Your task to perform on an android device: Do I have any events this weekend? Image 0: 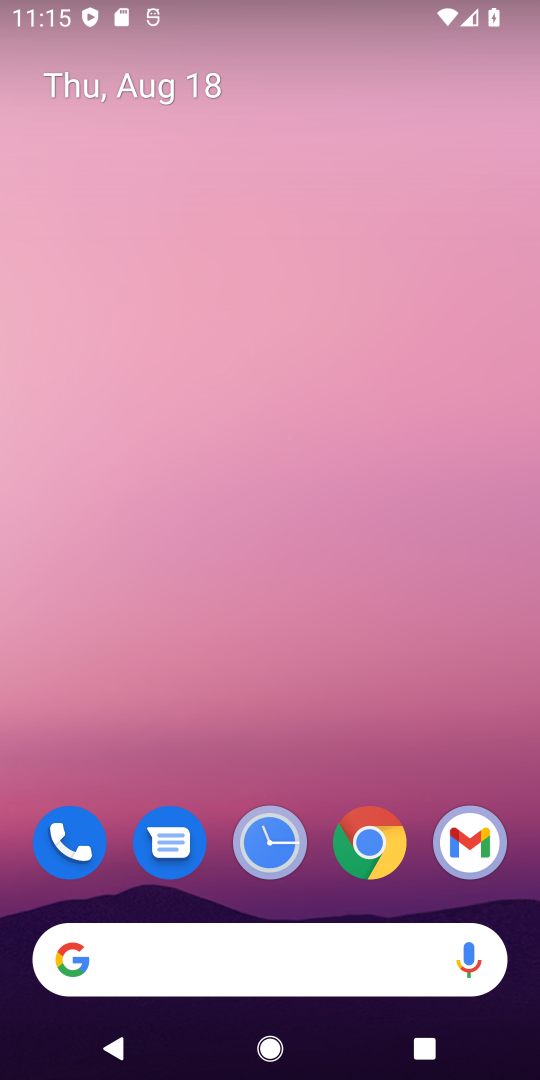
Step 0: click (193, 94)
Your task to perform on an android device: Do I have any events this weekend? Image 1: 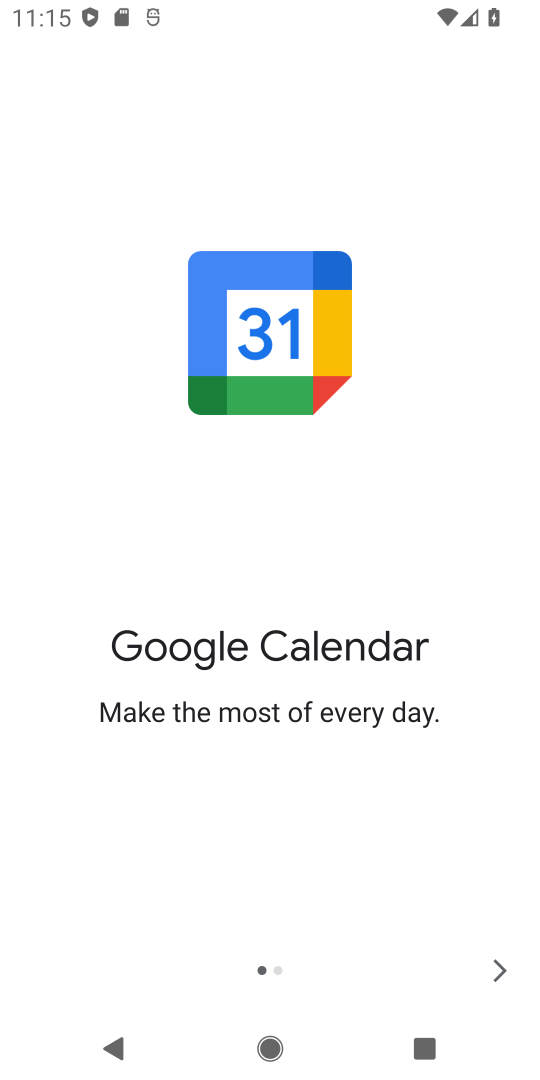
Step 1: click (513, 984)
Your task to perform on an android device: Do I have any events this weekend? Image 2: 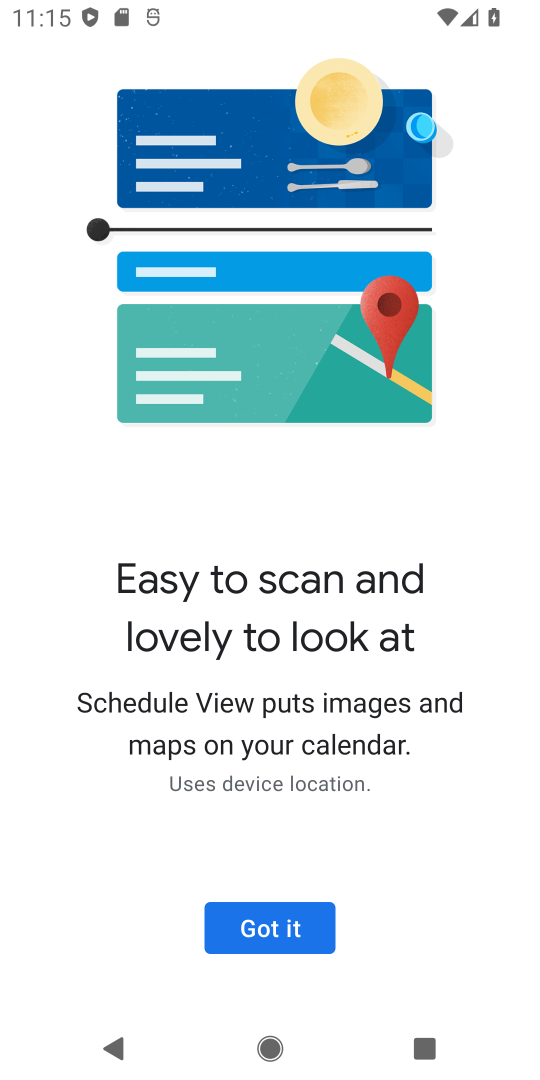
Step 2: click (257, 913)
Your task to perform on an android device: Do I have any events this weekend? Image 3: 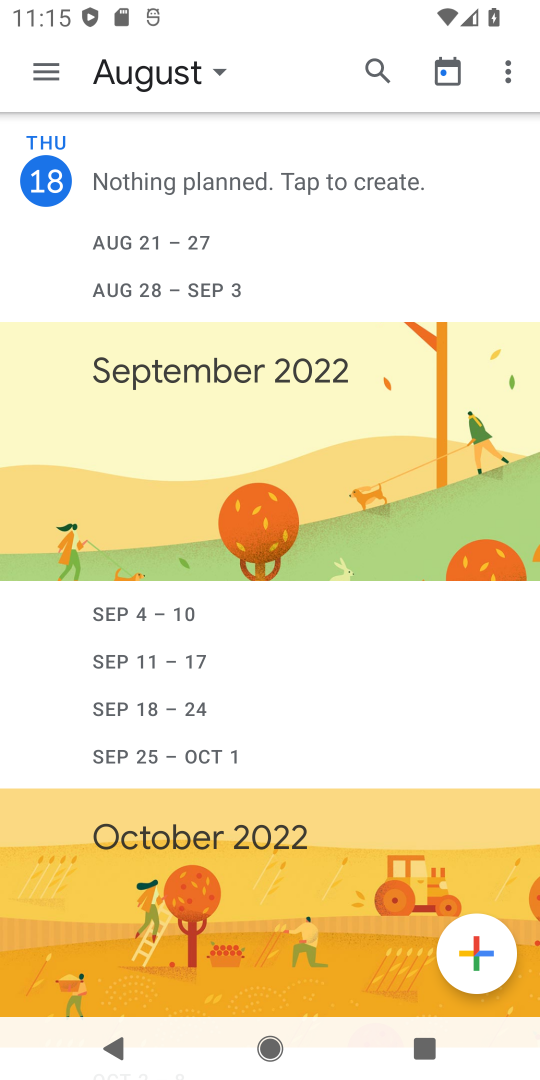
Step 3: click (201, 97)
Your task to perform on an android device: Do I have any events this weekend? Image 4: 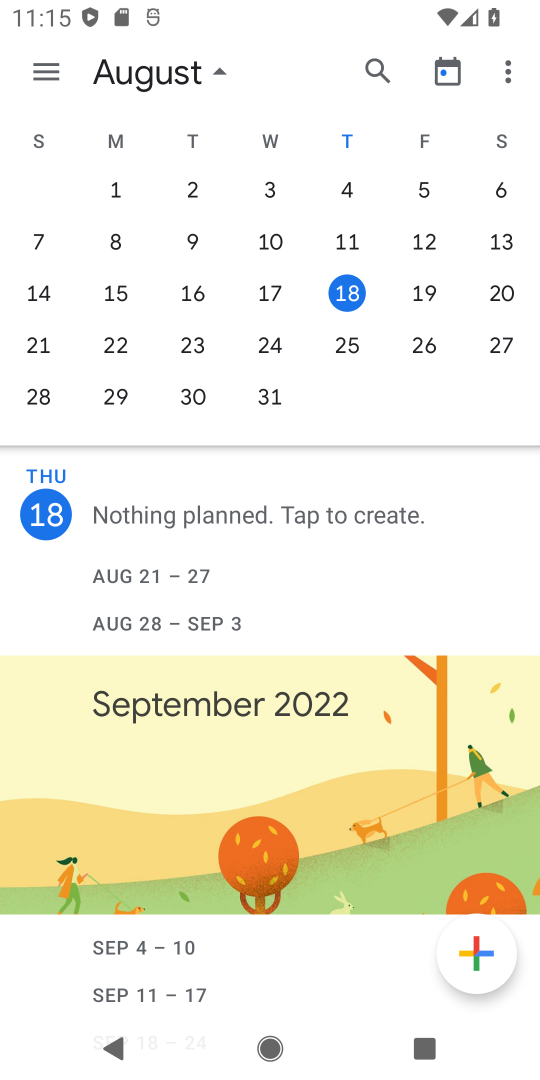
Step 4: click (522, 294)
Your task to perform on an android device: Do I have any events this weekend? Image 5: 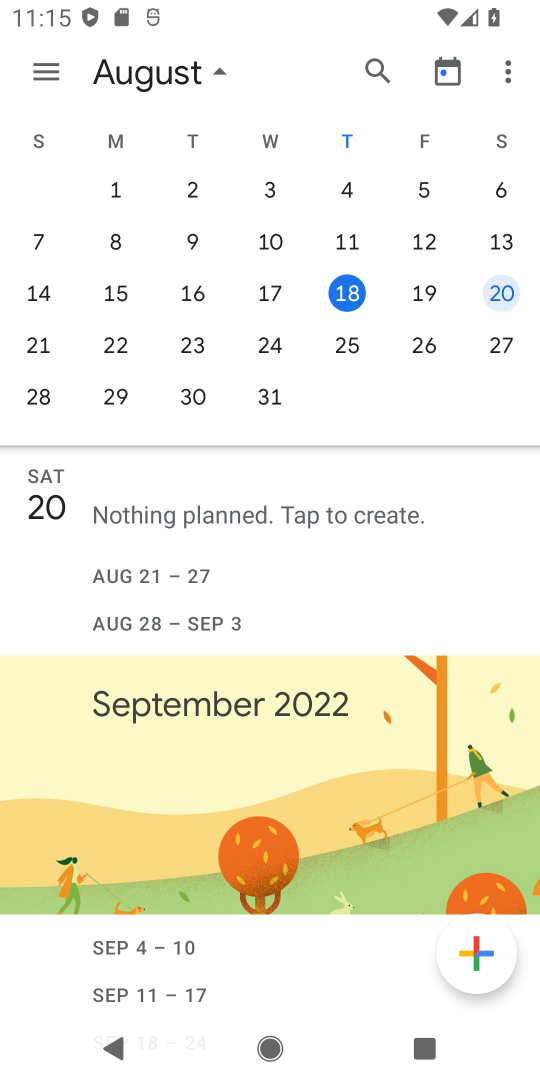
Step 5: task complete